Your task to perform on an android device: Check the news Image 0: 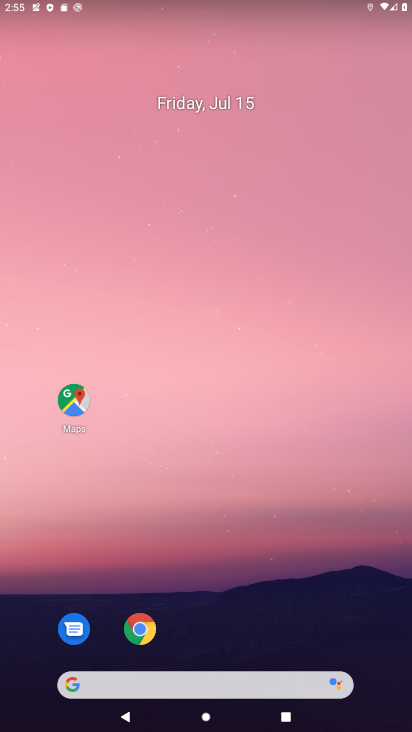
Step 0: drag from (241, 650) to (237, 43)
Your task to perform on an android device: Check the news Image 1: 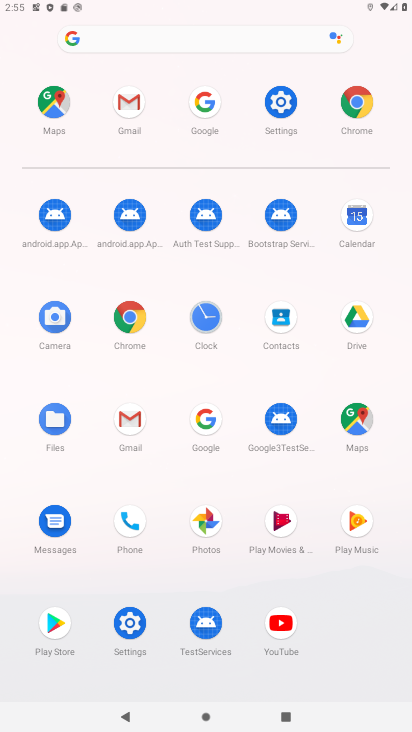
Step 1: click (205, 423)
Your task to perform on an android device: Check the news Image 2: 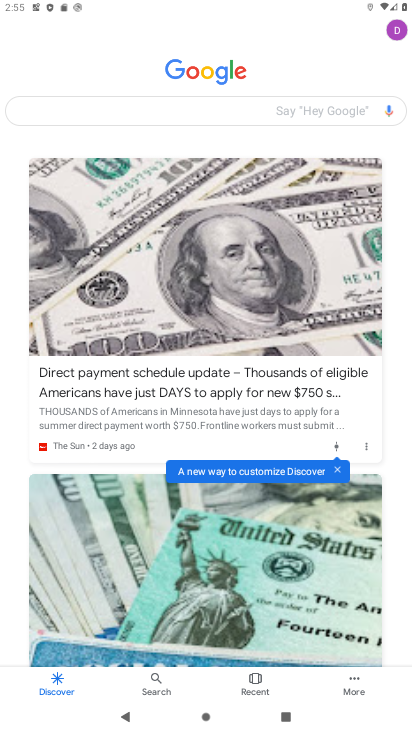
Step 2: click (189, 115)
Your task to perform on an android device: Check the news Image 3: 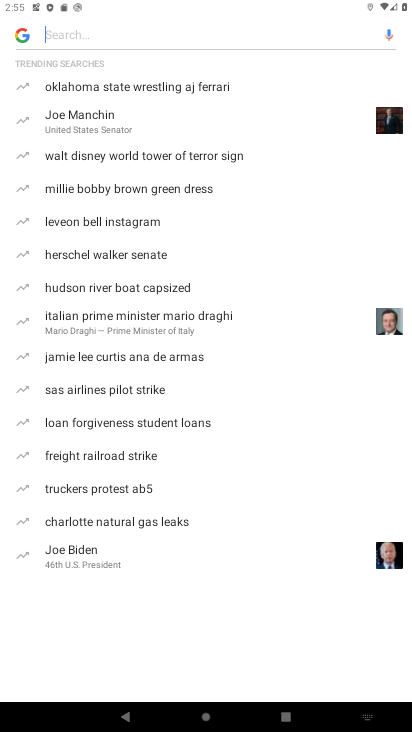
Step 3: type " news"
Your task to perform on an android device: Check the news Image 4: 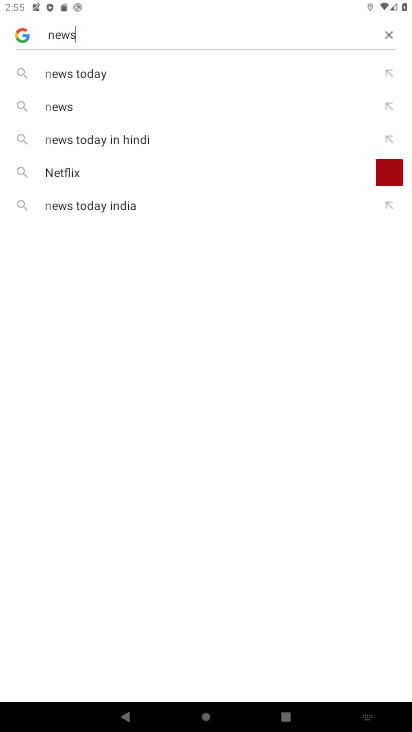
Step 4: type ""
Your task to perform on an android device: Check the news Image 5: 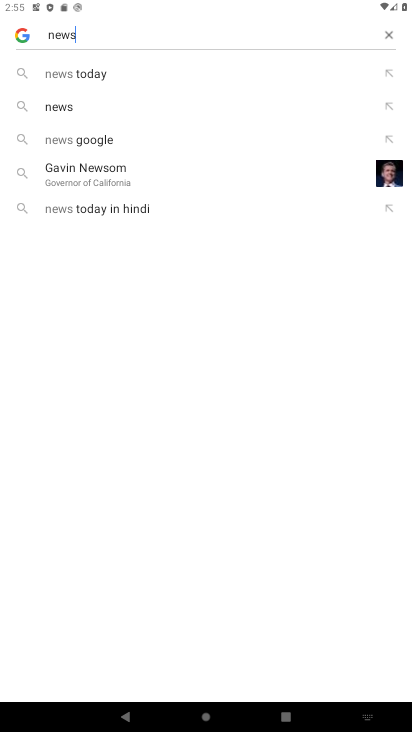
Step 5: click (58, 108)
Your task to perform on an android device: Check the news Image 6: 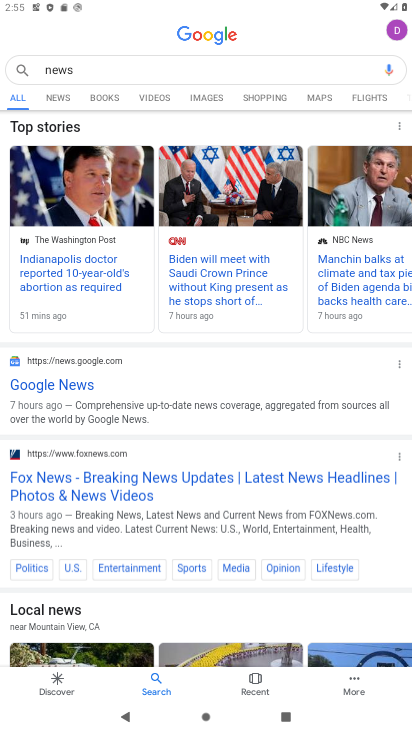
Step 6: task complete